Your task to perform on an android device: Set an alarm for 12pm Image 0: 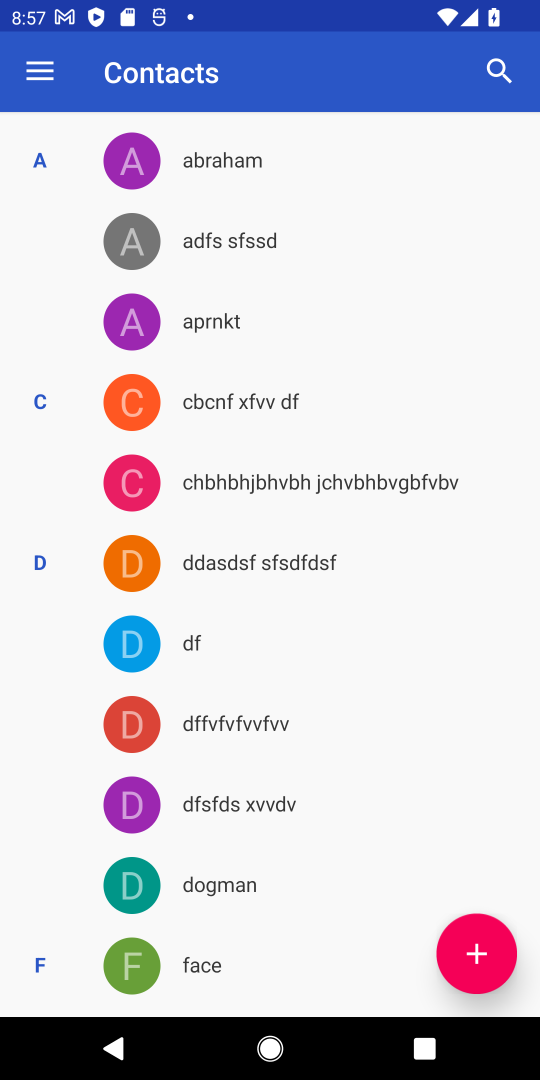
Step 0: press home button
Your task to perform on an android device: Set an alarm for 12pm Image 1: 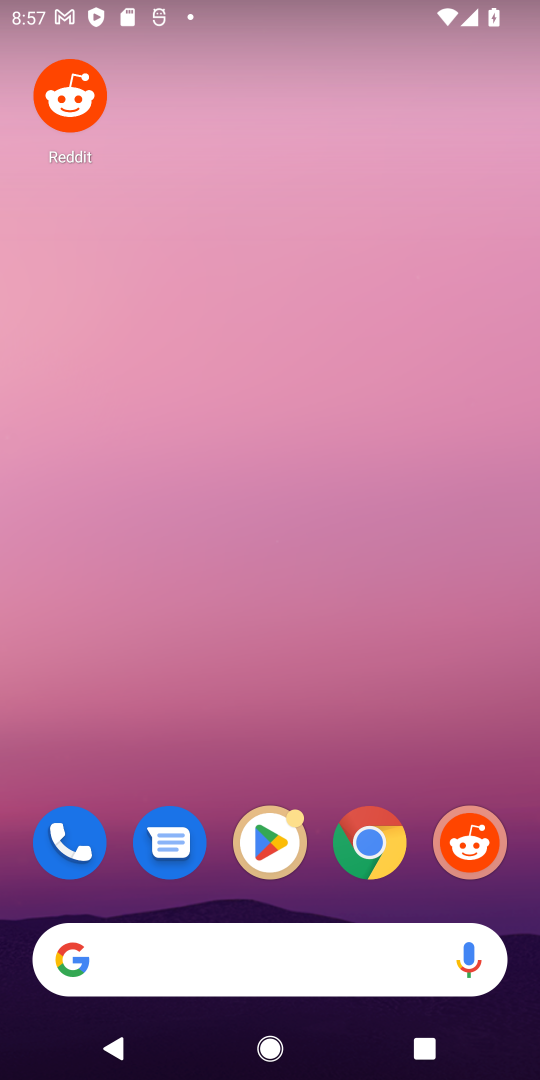
Step 1: click (283, 961)
Your task to perform on an android device: Set an alarm for 12pm Image 2: 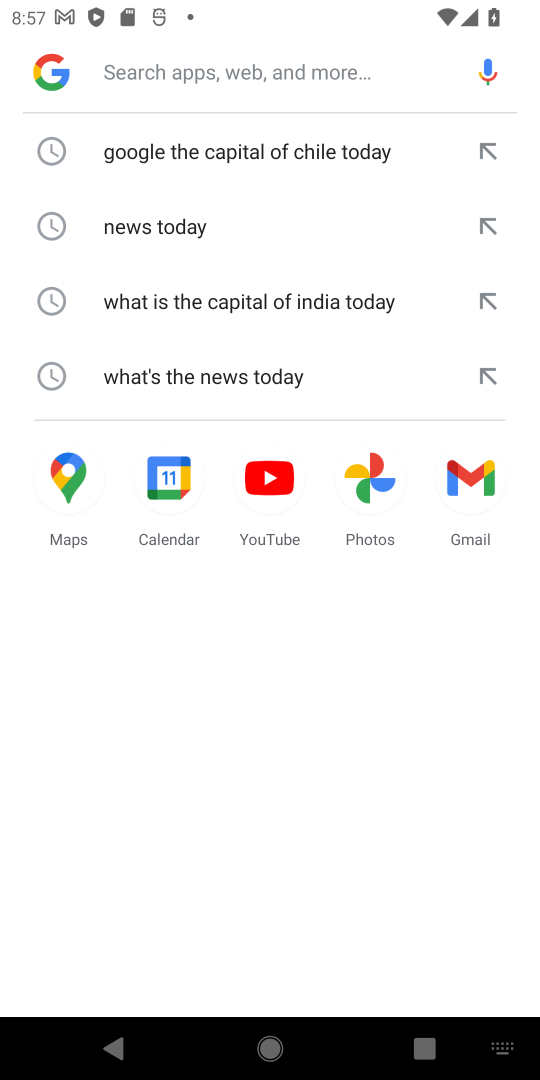
Step 2: press home button
Your task to perform on an android device: Set an alarm for 12pm Image 3: 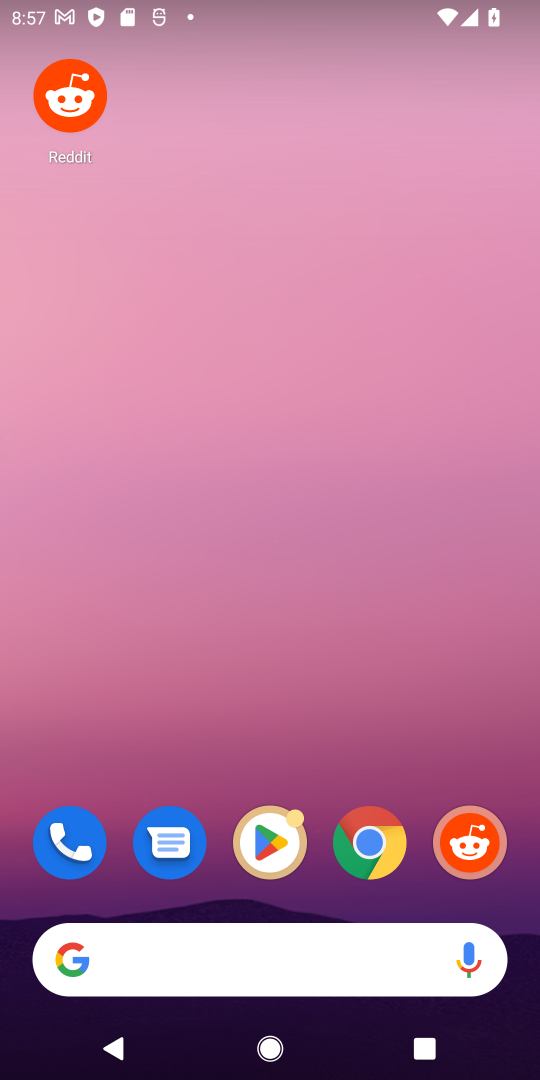
Step 3: drag from (302, 742) to (205, 40)
Your task to perform on an android device: Set an alarm for 12pm Image 4: 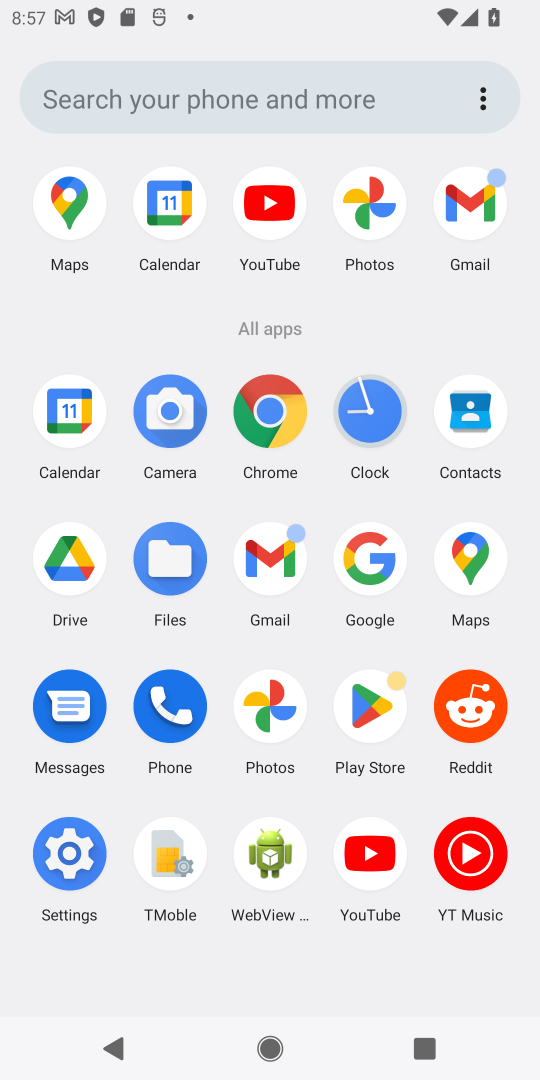
Step 4: click (378, 417)
Your task to perform on an android device: Set an alarm for 12pm Image 5: 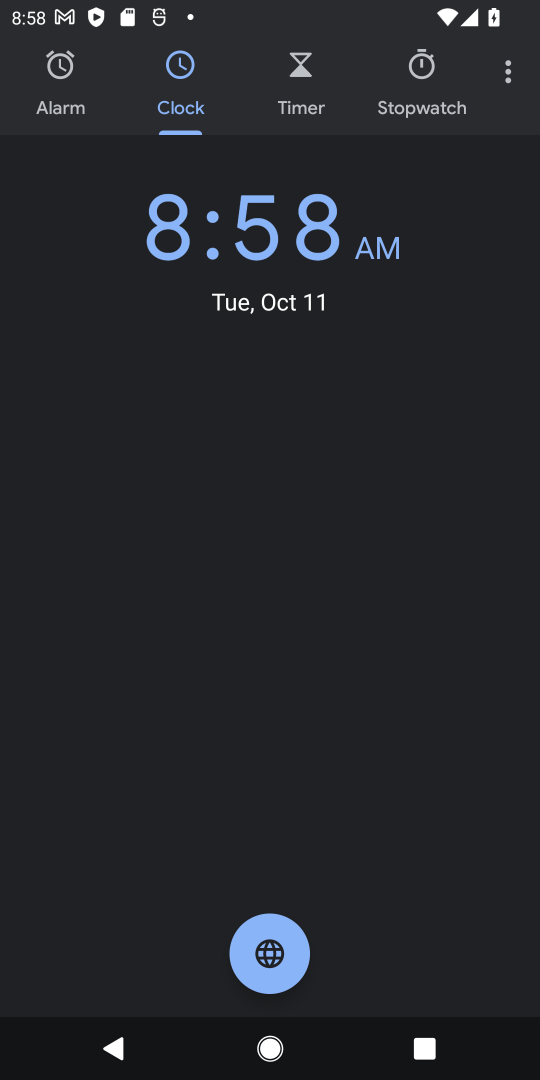
Step 5: click (44, 88)
Your task to perform on an android device: Set an alarm for 12pm Image 6: 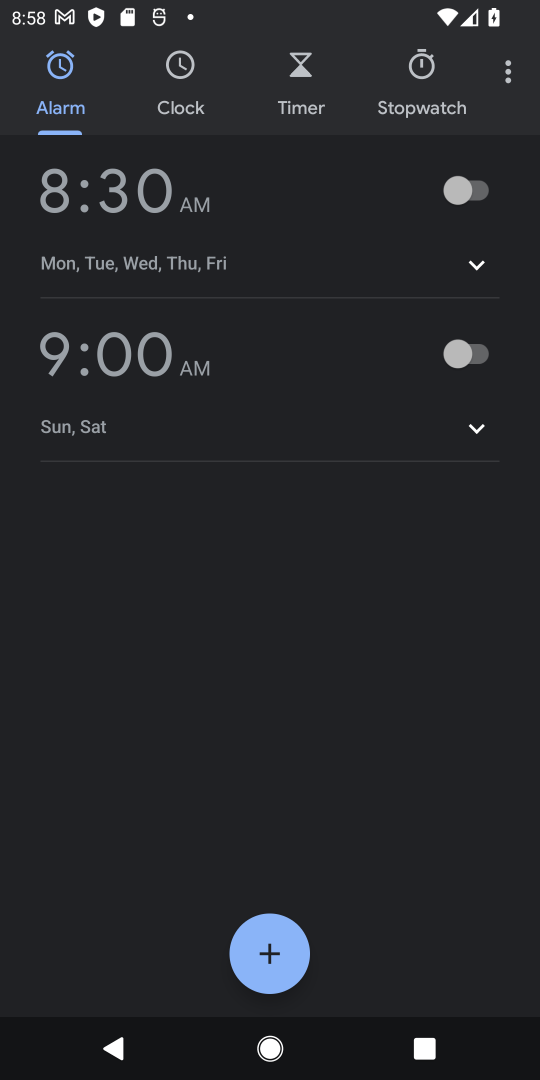
Step 6: click (260, 951)
Your task to perform on an android device: Set an alarm for 12pm Image 7: 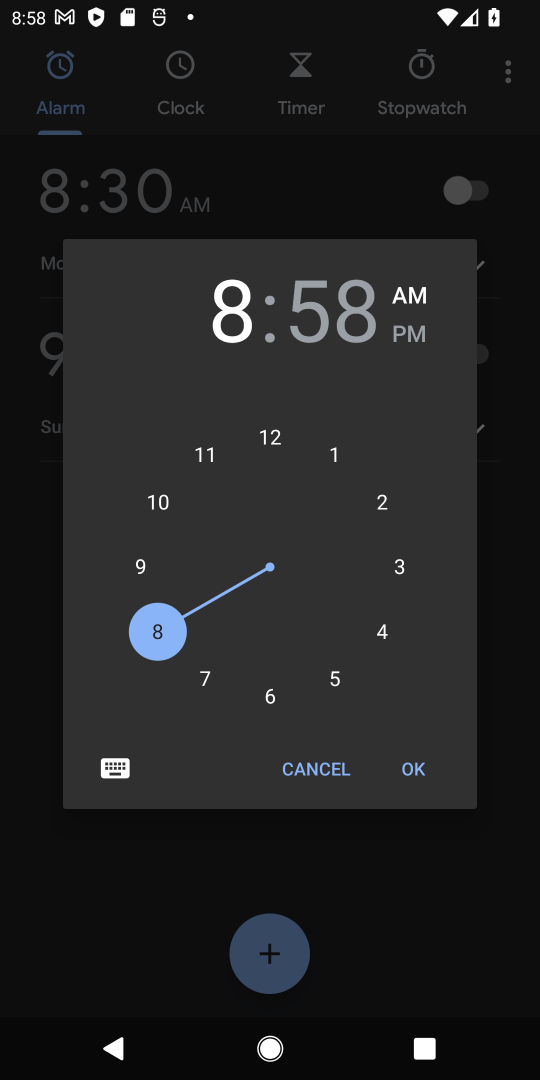
Step 7: click (271, 435)
Your task to perform on an android device: Set an alarm for 12pm Image 8: 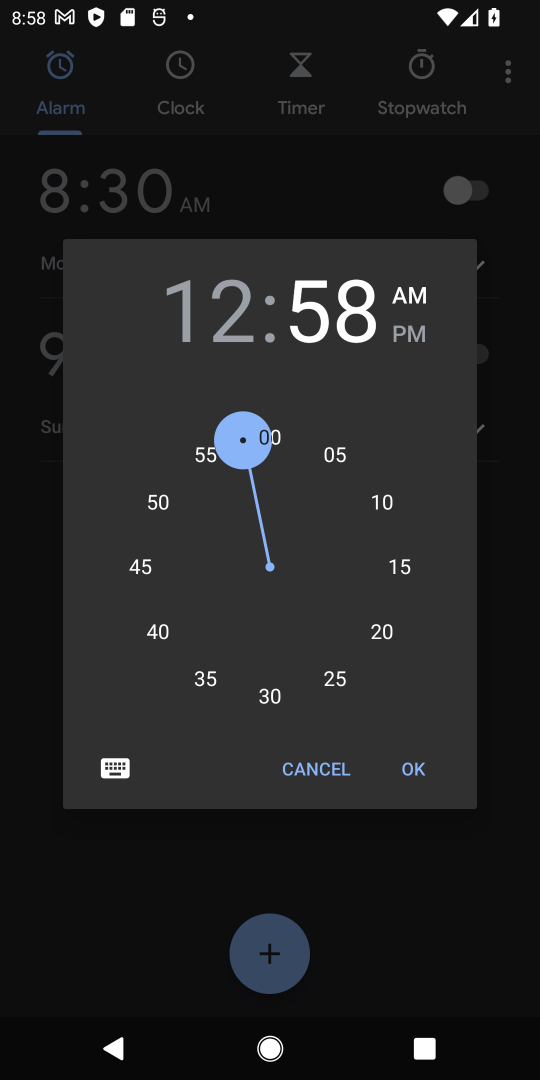
Step 8: click (275, 447)
Your task to perform on an android device: Set an alarm for 12pm Image 9: 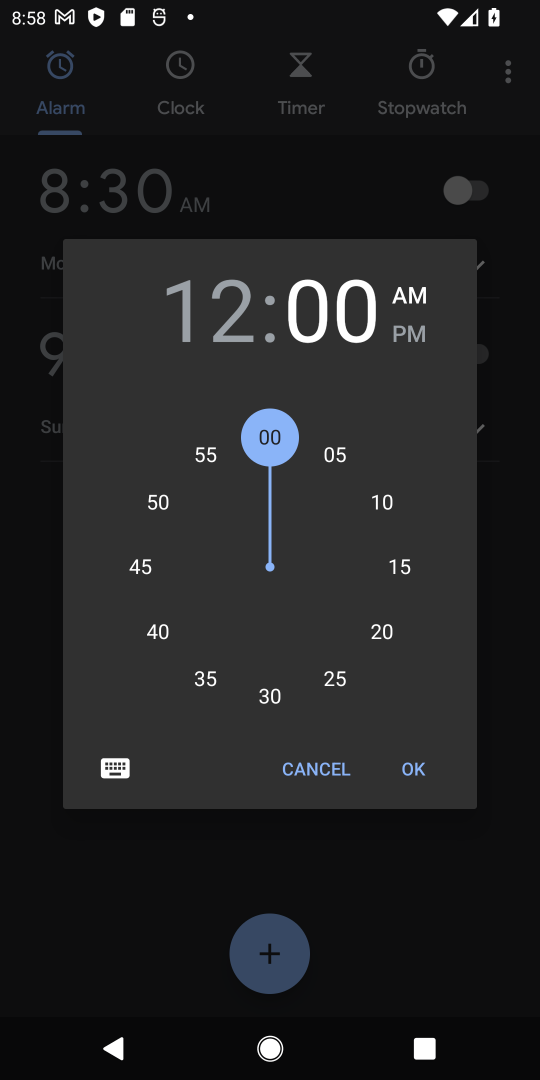
Step 9: click (416, 769)
Your task to perform on an android device: Set an alarm for 12pm Image 10: 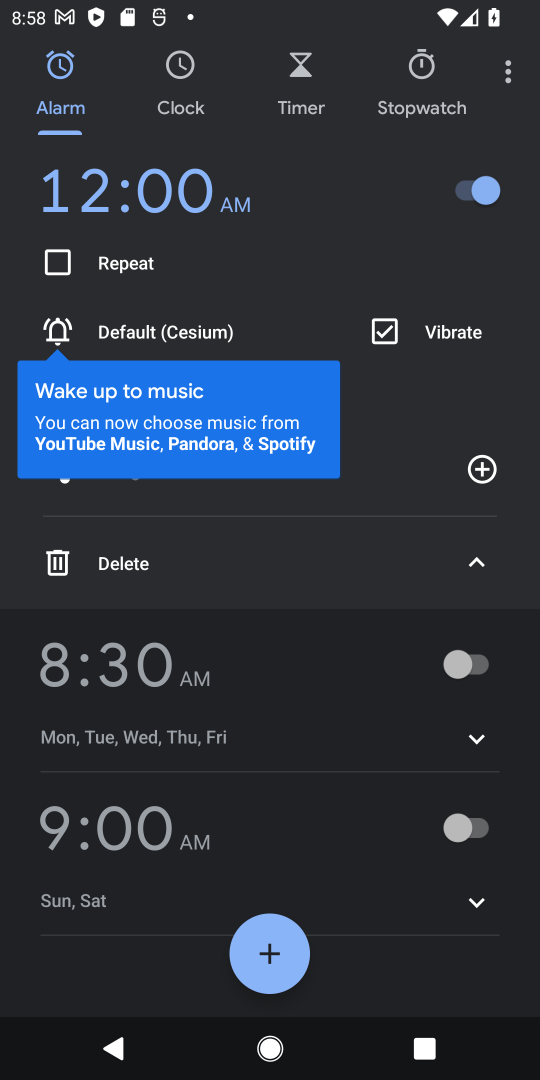
Step 10: task complete